Your task to perform on an android device: turn off location Image 0: 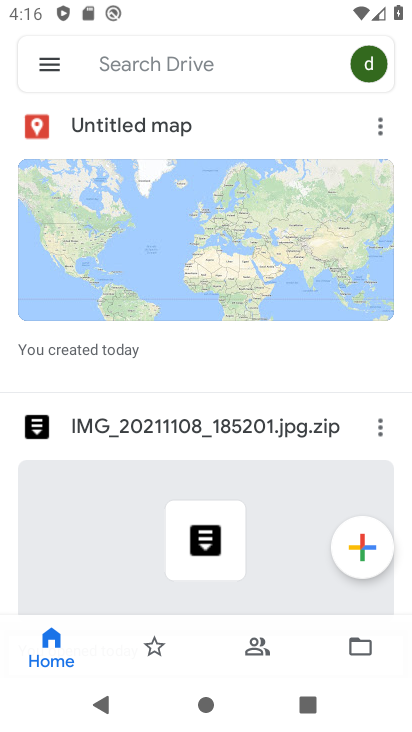
Step 0: press home button
Your task to perform on an android device: turn off location Image 1: 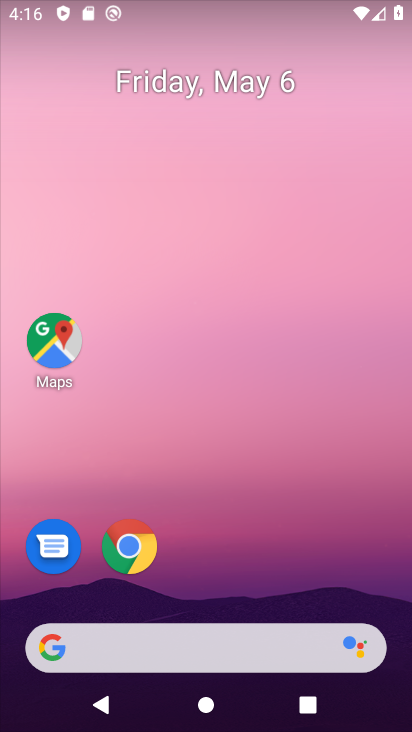
Step 1: drag from (207, 577) to (184, 172)
Your task to perform on an android device: turn off location Image 2: 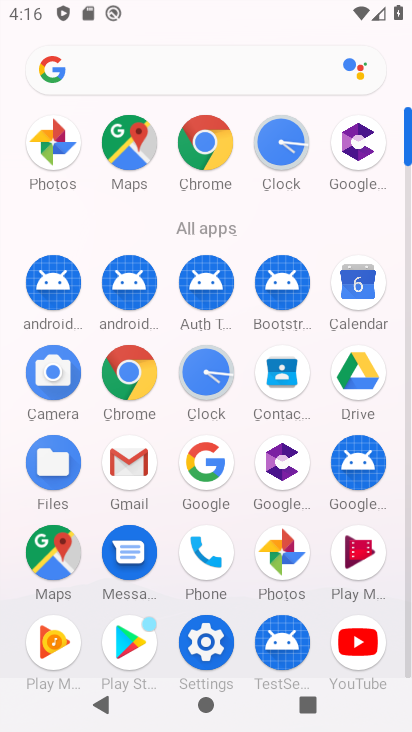
Step 2: click (200, 644)
Your task to perform on an android device: turn off location Image 3: 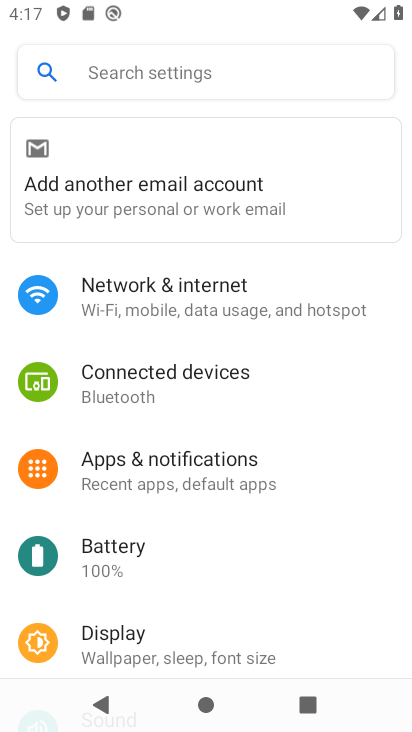
Step 3: drag from (183, 611) to (182, 255)
Your task to perform on an android device: turn off location Image 4: 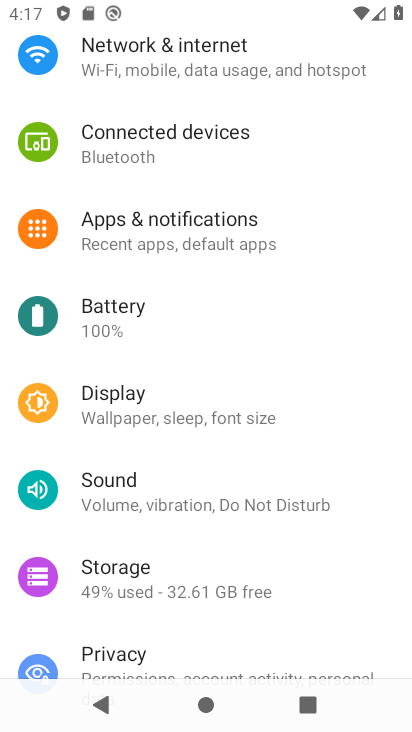
Step 4: drag from (180, 616) to (189, 279)
Your task to perform on an android device: turn off location Image 5: 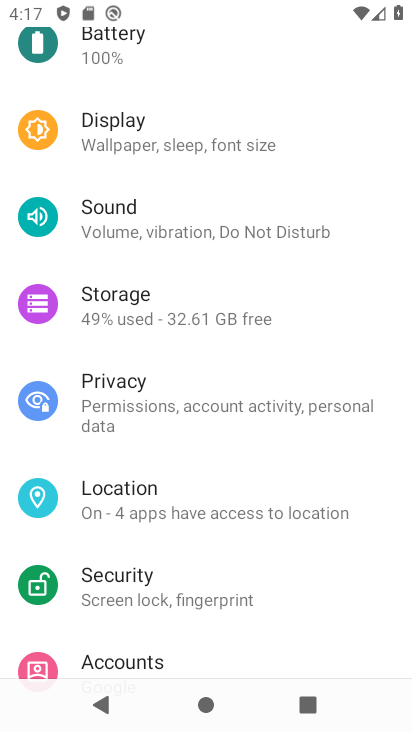
Step 5: click (190, 491)
Your task to perform on an android device: turn off location Image 6: 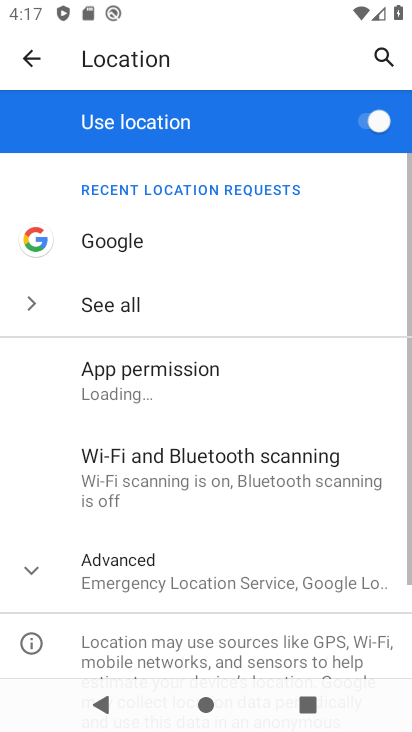
Step 6: click (359, 122)
Your task to perform on an android device: turn off location Image 7: 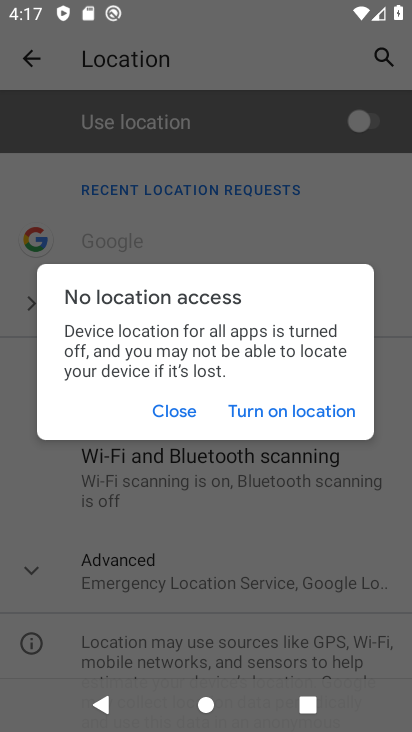
Step 7: task complete